Your task to perform on an android device: Go to CNN.com Image 0: 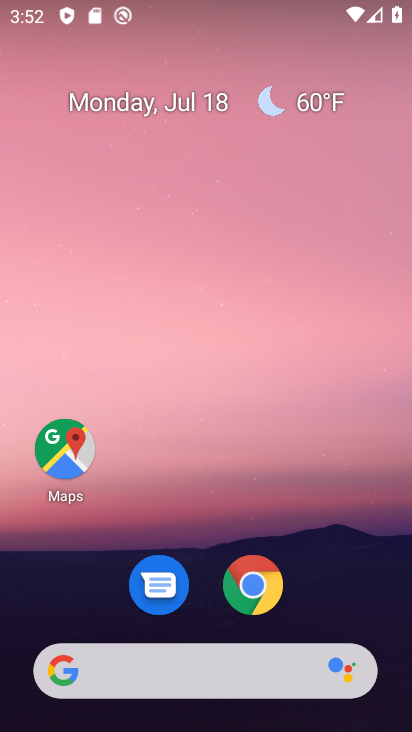
Step 0: drag from (219, 501) to (253, 0)
Your task to perform on an android device: Go to CNN.com Image 1: 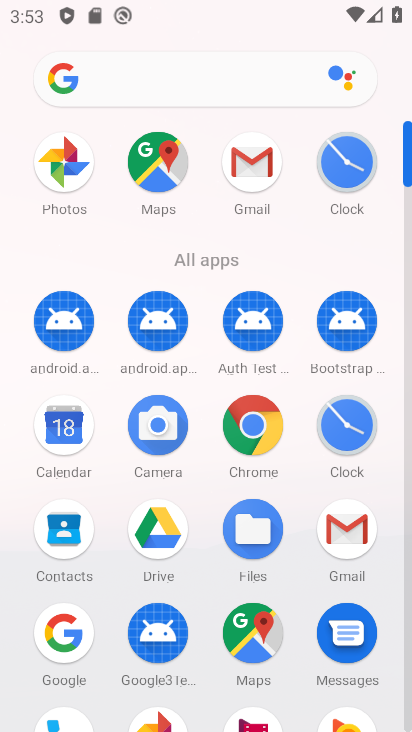
Step 1: click (231, 78)
Your task to perform on an android device: Go to CNN.com Image 2: 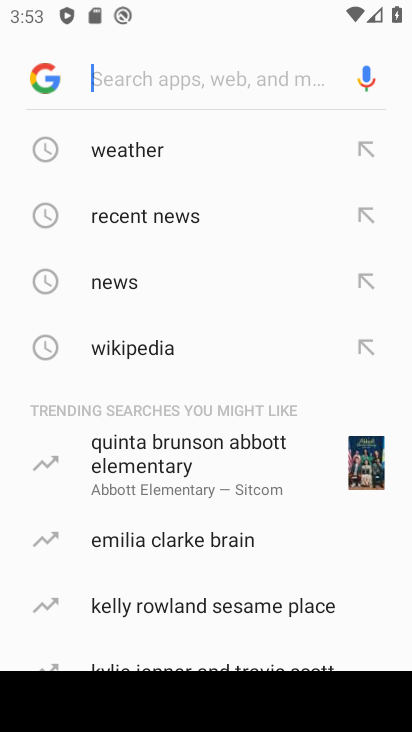
Step 2: type "cnn.com"
Your task to perform on an android device: Go to CNN.com Image 3: 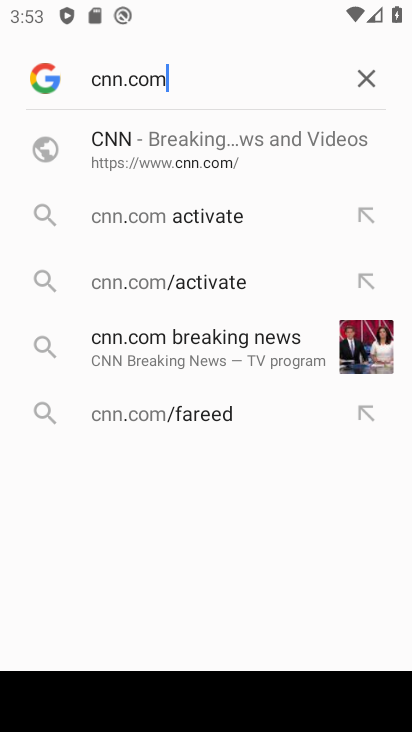
Step 3: click (114, 159)
Your task to perform on an android device: Go to CNN.com Image 4: 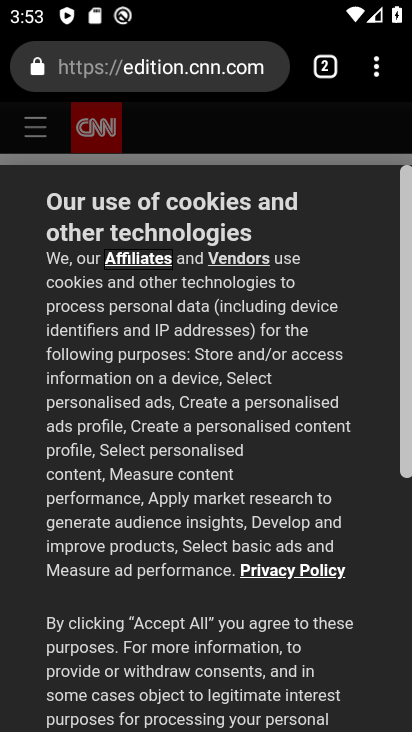
Step 4: drag from (228, 667) to (265, 202)
Your task to perform on an android device: Go to CNN.com Image 5: 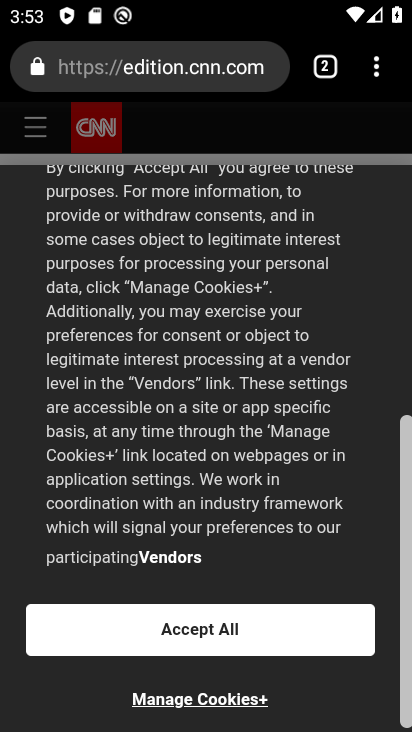
Step 5: click (257, 617)
Your task to perform on an android device: Go to CNN.com Image 6: 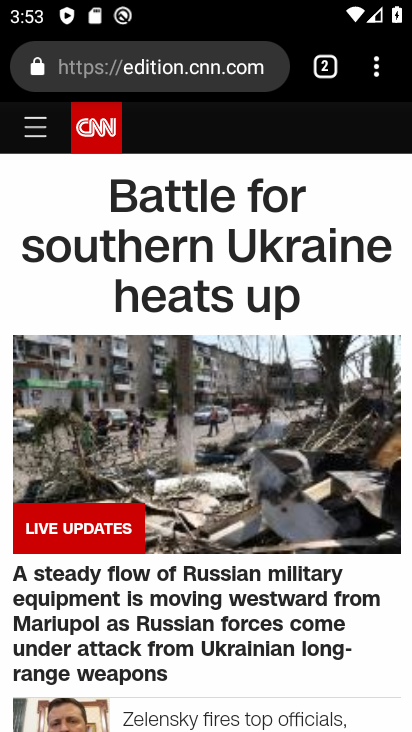
Step 6: task complete